Your task to perform on an android device: toggle priority inbox in the gmail app Image 0: 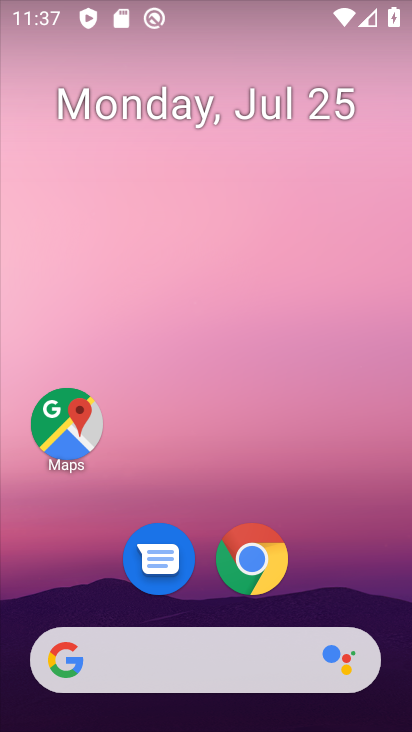
Step 0: drag from (92, 609) to (145, 79)
Your task to perform on an android device: toggle priority inbox in the gmail app Image 1: 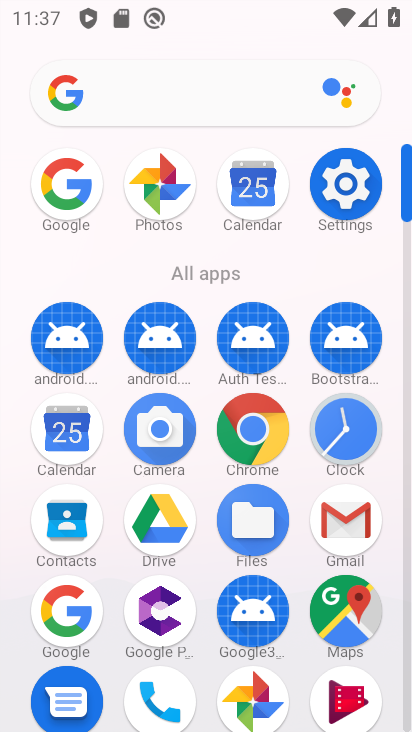
Step 1: click (352, 515)
Your task to perform on an android device: toggle priority inbox in the gmail app Image 2: 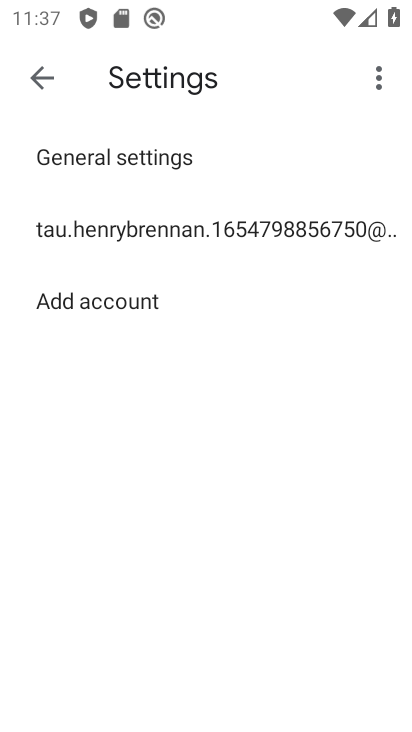
Step 2: click (45, 66)
Your task to perform on an android device: toggle priority inbox in the gmail app Image 3: 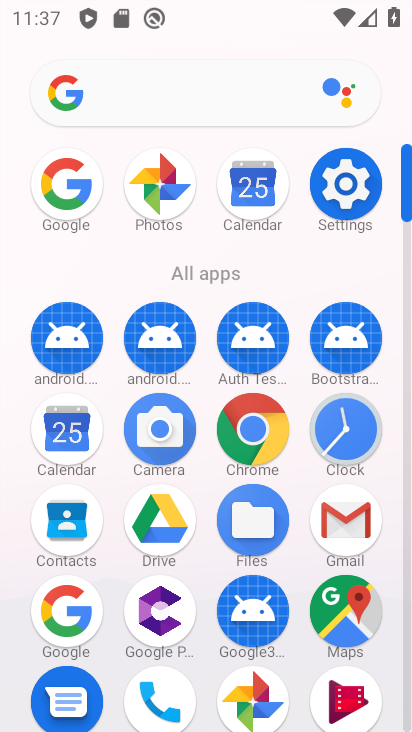
Step 3: click (347, 517)
Your task to perform on an android device: toggle priority inbox in the gmail app Image 4: 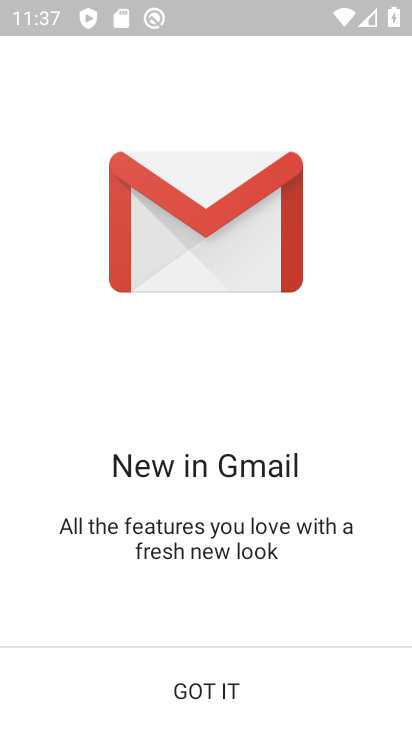
Step 4: click (195, 698)
Your task to perform on an android device: toggle priority inbox in the gmail app Image 5: 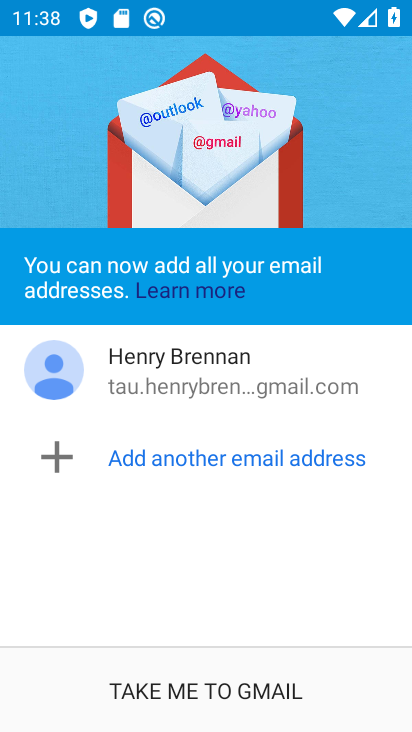
Step 5: click (162, 696)
Your task to perform on an android device: toggle priority inbox in the gmail app Image 6: 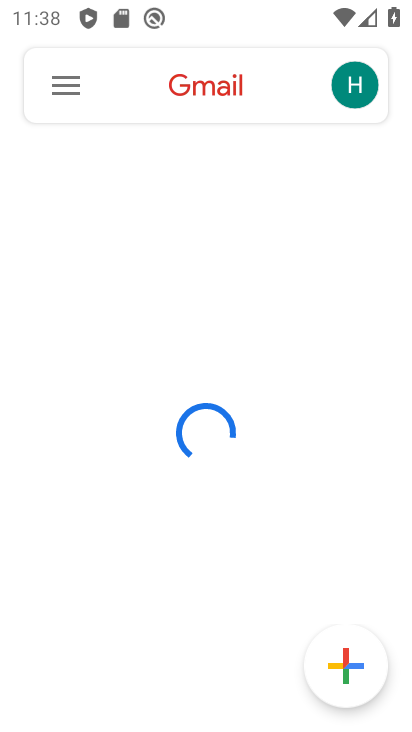
Step 6: click (62, 94)
Your task to perform on an android device: toggle priority inbox in the gmail app Image 7: 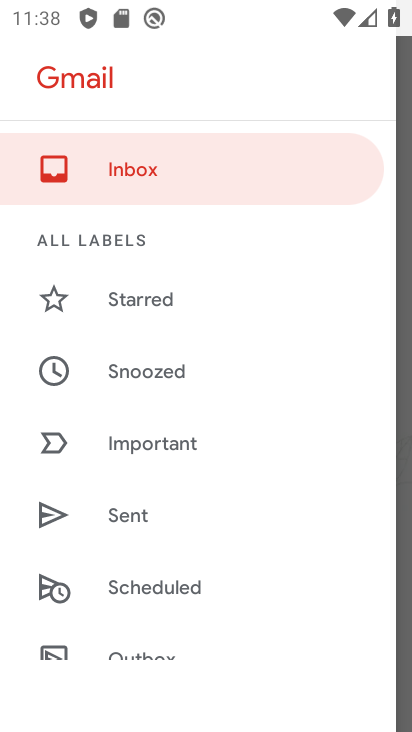
Step 7: drag from (183, 644) to (284, 41)
Your task to perform on an android device: toggle priority inbox in the gmail app Image 8: 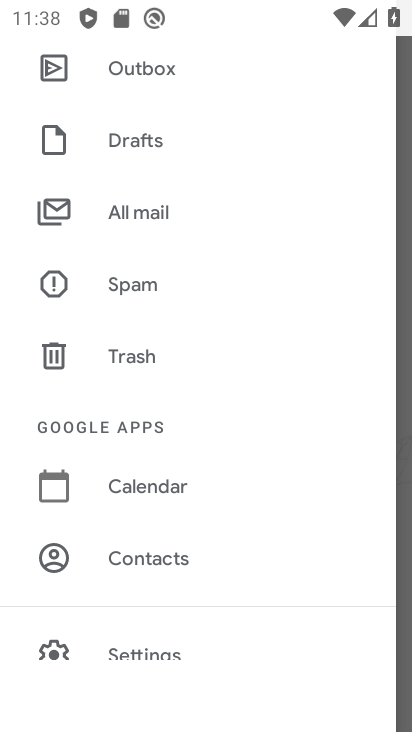
Step 8: drag from (194, 592) to (255, 24)
Your task to perform on an android device: toggle priority inbox in the gmail app Image 9: 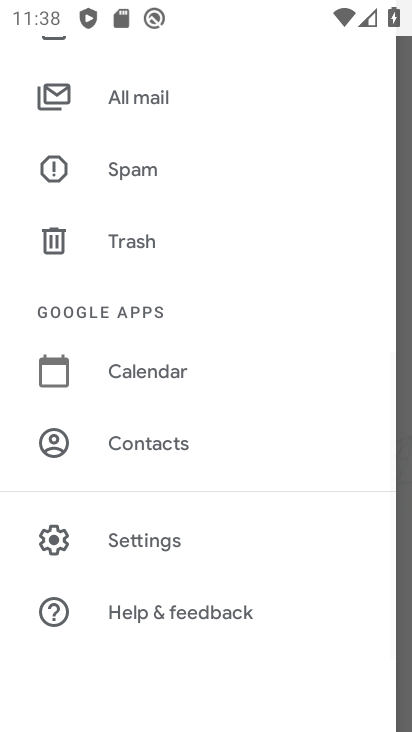
Step 9: click (171, 572)
Your task to perform on an android device: toggle priority inbox in the gmail app Image 10: 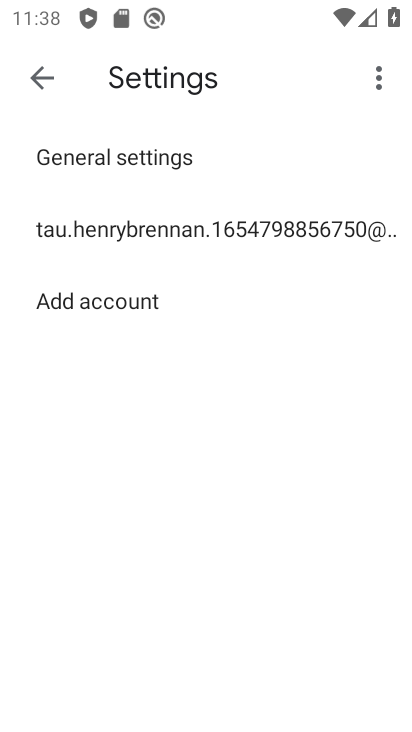
Step 10: click (194, 226)
Your task to perform on an android device: toggle priority inbox in the gmail app Image 11: 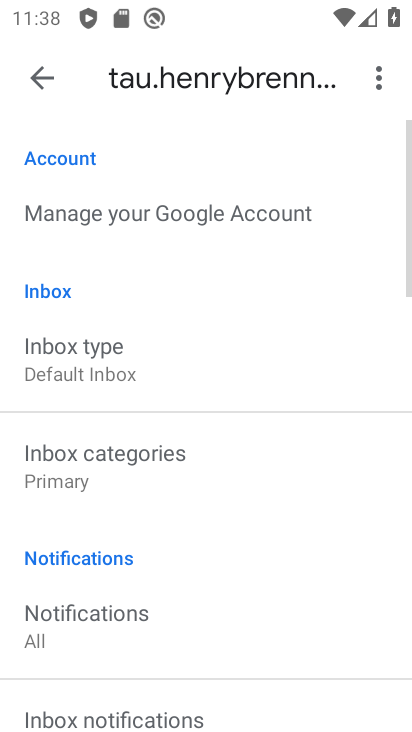
Step 11: click (73, 372)
Your task to perform on an android device: toggle priority inbox in the gmail app Image 12: 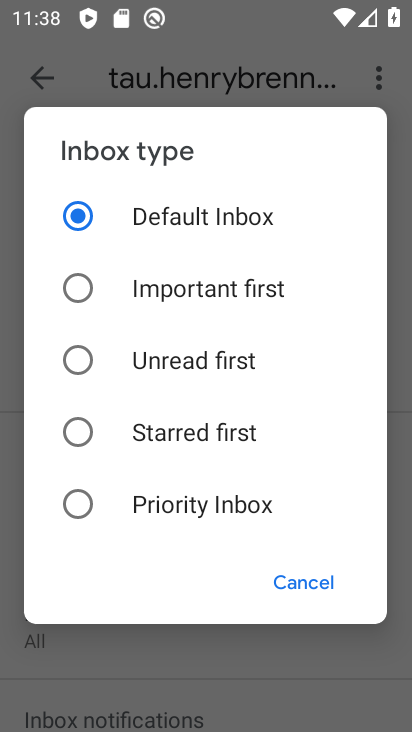
Step 12: click (71, 502)
Your task to perform on an android device: toggle priority inbox in the gmail app Image 13: 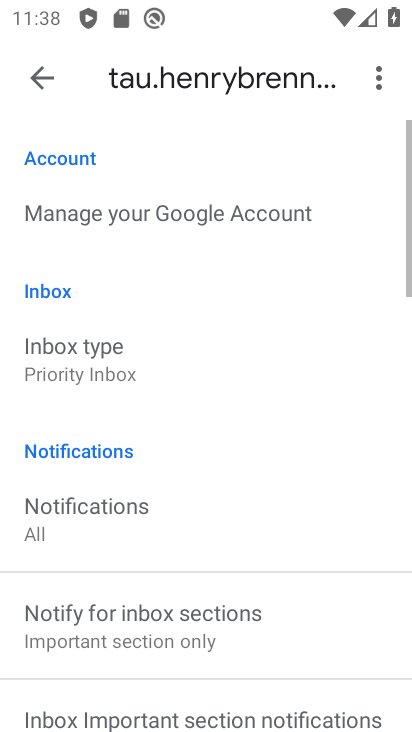
Step 13: task complete